Your task to perform on an android device: turn on javascript in the chrome app Image 0: 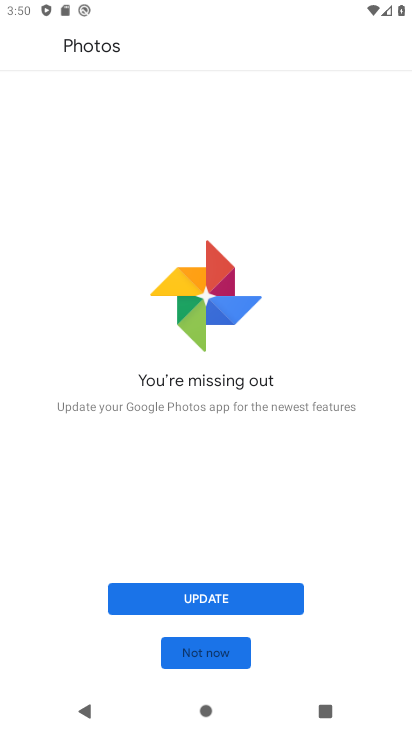
Step 0: press home button
Your task to perform on an android device: turn on javascript in the chrome app Image 1: 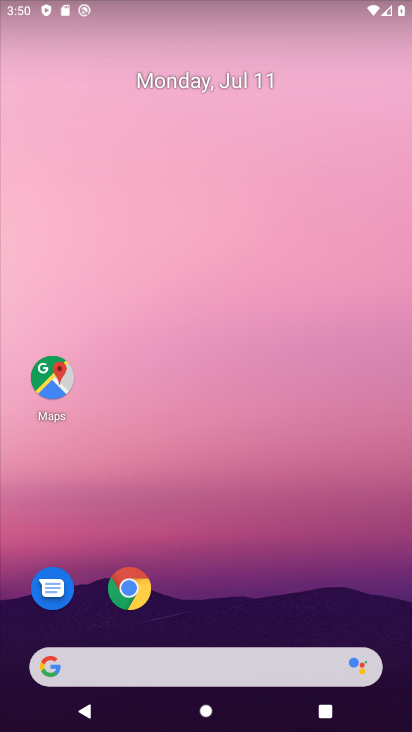
Step 1: drag from (338, 608) to (315, 103)
Your task to perform on an android device: turn on javascript in the chrome app Image 2: 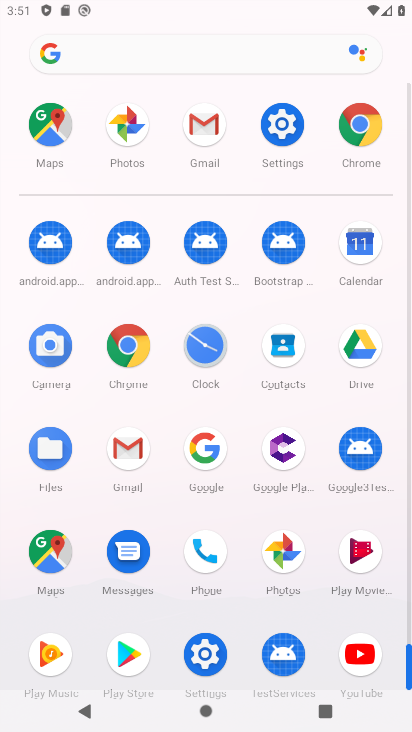
Step 2: click (132, 348)
Your task to perform on an android device: turn on javascript in the chrome app Image 3: 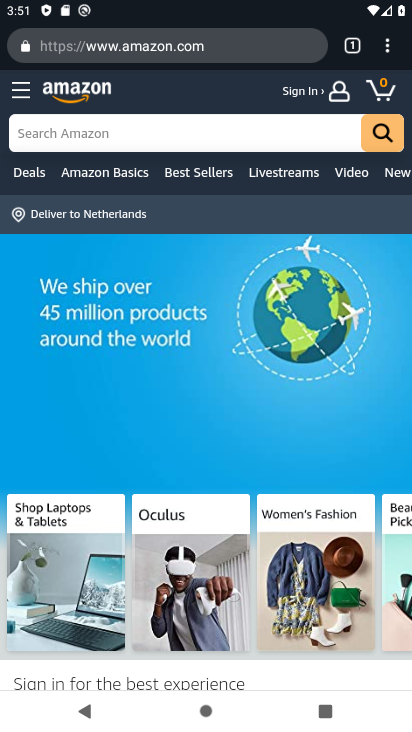
Step 3: click (390, 55)
Your task to perform on an android device: turn on javascript in the chrome app Image 4: 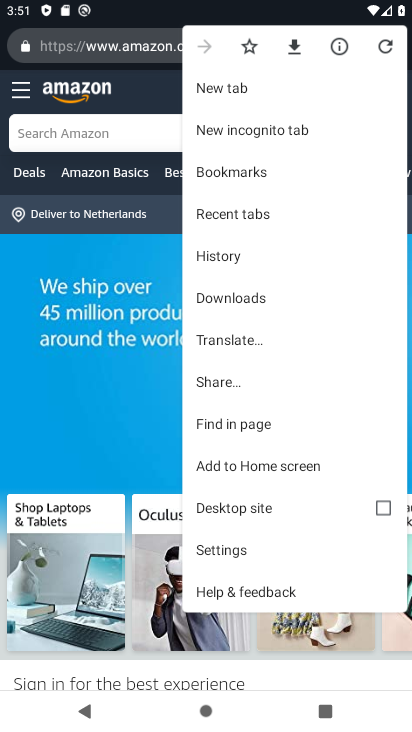
Step 4: click (277, 558)
Your task to perform on an android device: turn on javascript in the chrome app Image 5: 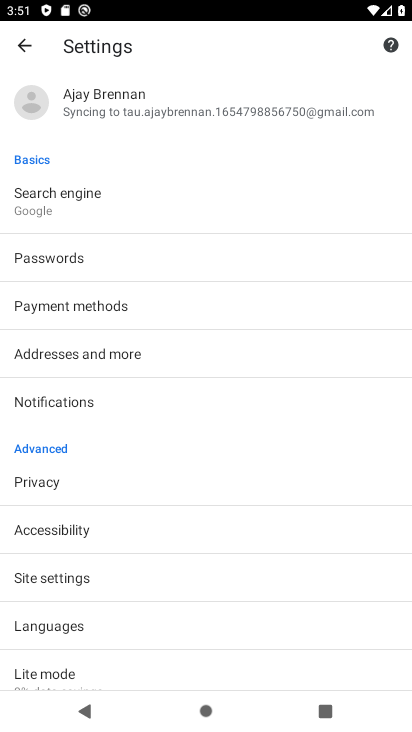
Step 5: drag from (314, 497) to (315, 394)
Your task to perform on an android device: turn on javascript in the chrome app Image 6: 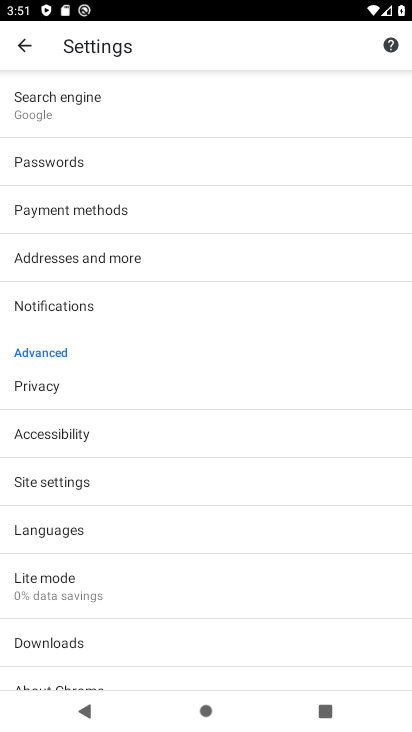
Step 6: drag from (347, 507) to (338, 377)
Your task to perform on an android device: turn on javascript in the chrome app Image 7: 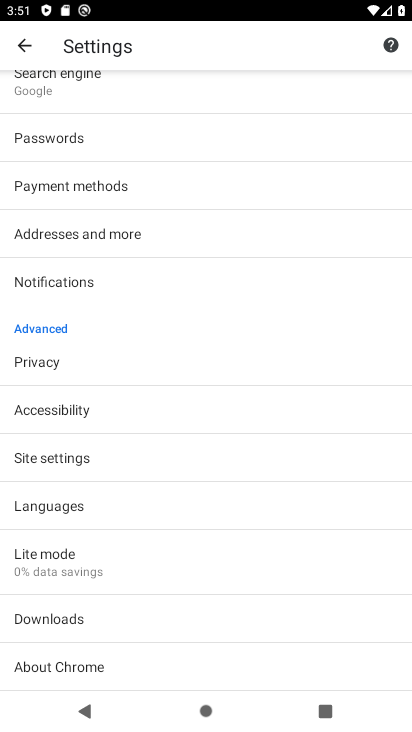
Step 7: drag from (328, 503) to (323, 374)
Your task to perform on an android device: turn on javascript in the chrome app Image 8: 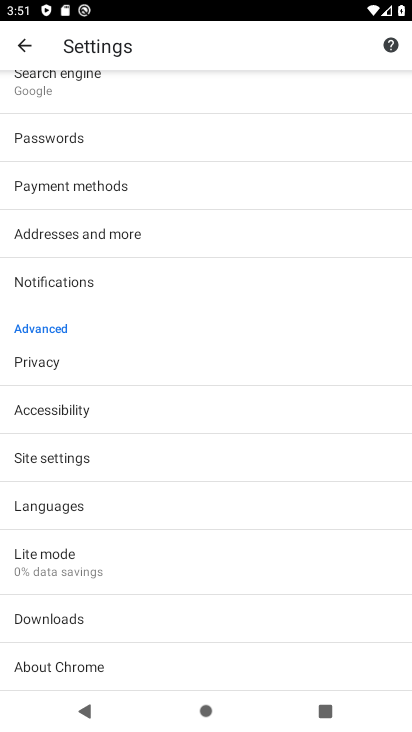
Step 8: click (204, 461)
Your task to perform on an android device: turn on javascript in the chrome app Image 9: 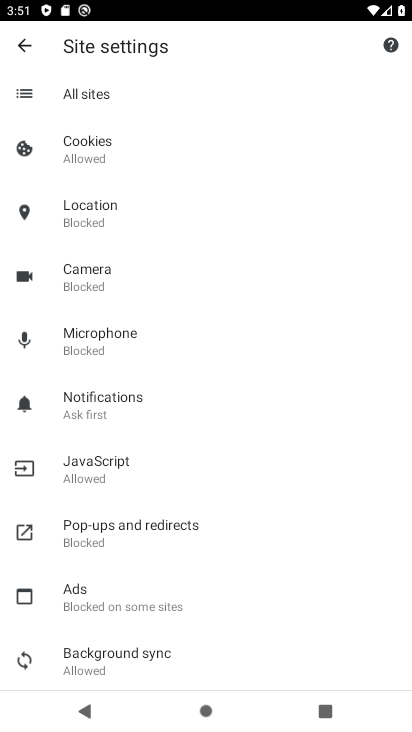
Step 9: drag from (283, 540) to (292, 458)
Your task to perform on an android device: turn on javascript in the chrome app Image 10: 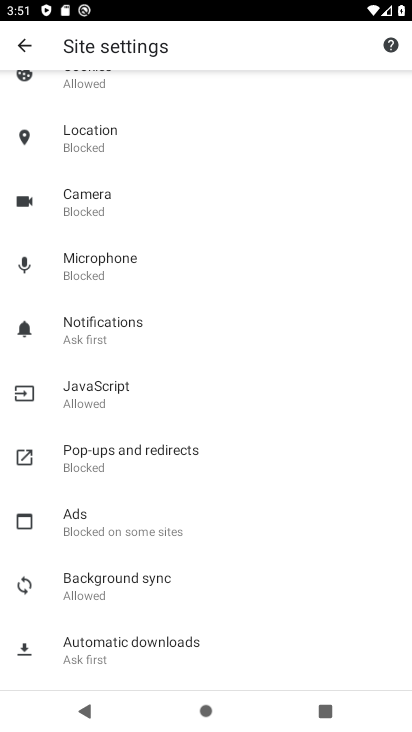
Step 10: drag from (302, 550) to (310, 461)
Your task to perform on an android device: turn on javascript in the chrome app Image 11: 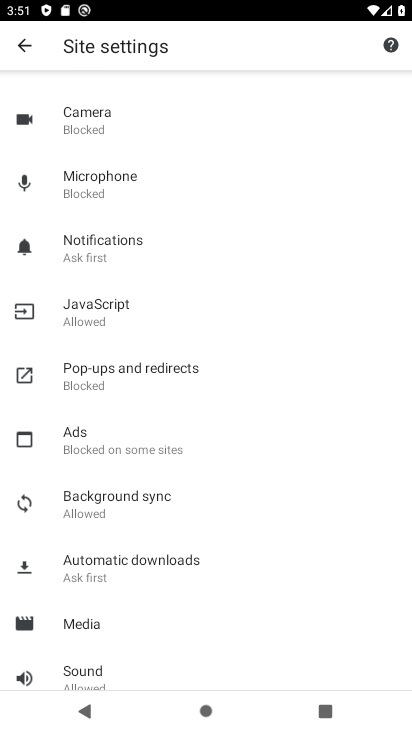
Step 11: drag from (324, 567) to (319, 442)
Your task to perform on an android device: turn on javascript in the chrome app Image 12: 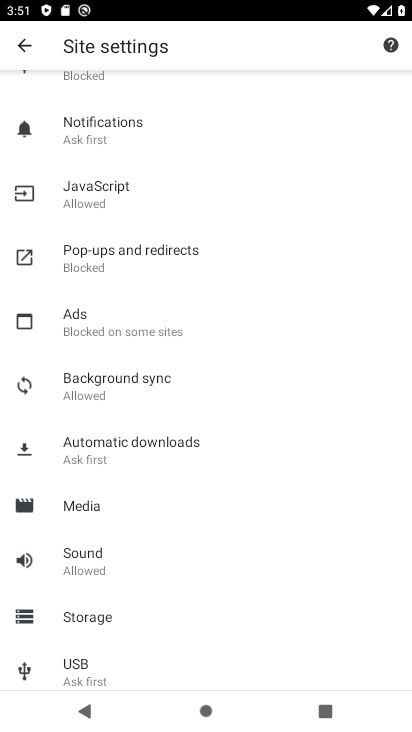
Step 12: click (127, 192)
Your task to perform on an android device: turn on javascript in the chrome app Image 13: 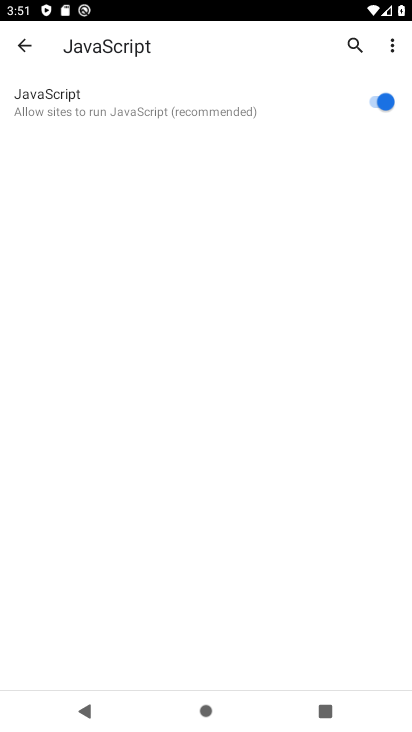
Step 13: task complete